Your task to perform on an android device: Open calendar and show me the third week of next month Image 0: 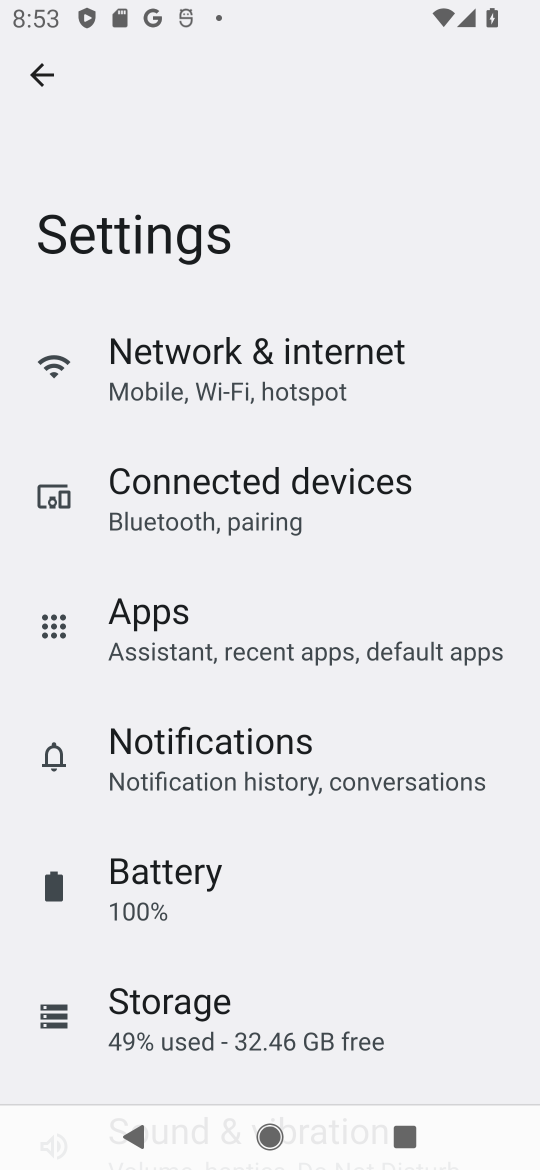
Step 0: press home button
Your task to perform on an android device: Open calendar and show me the third week of next month Image 1: 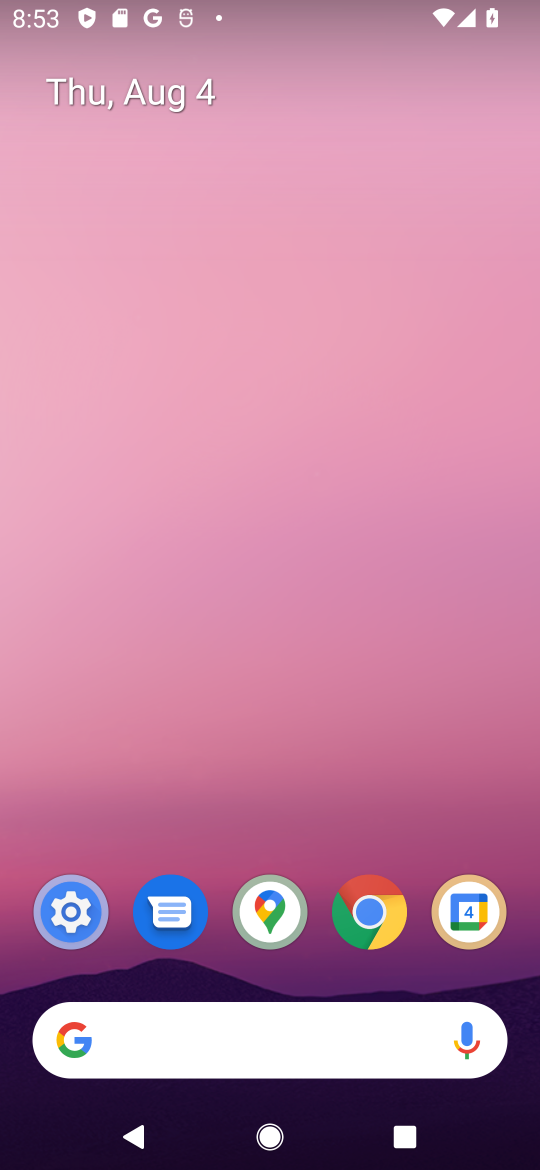
Step 1: drag from (421, 848) to (348, 105)
Your task to perform on an android device: Open calendar and show me the third week of next month Image 2: 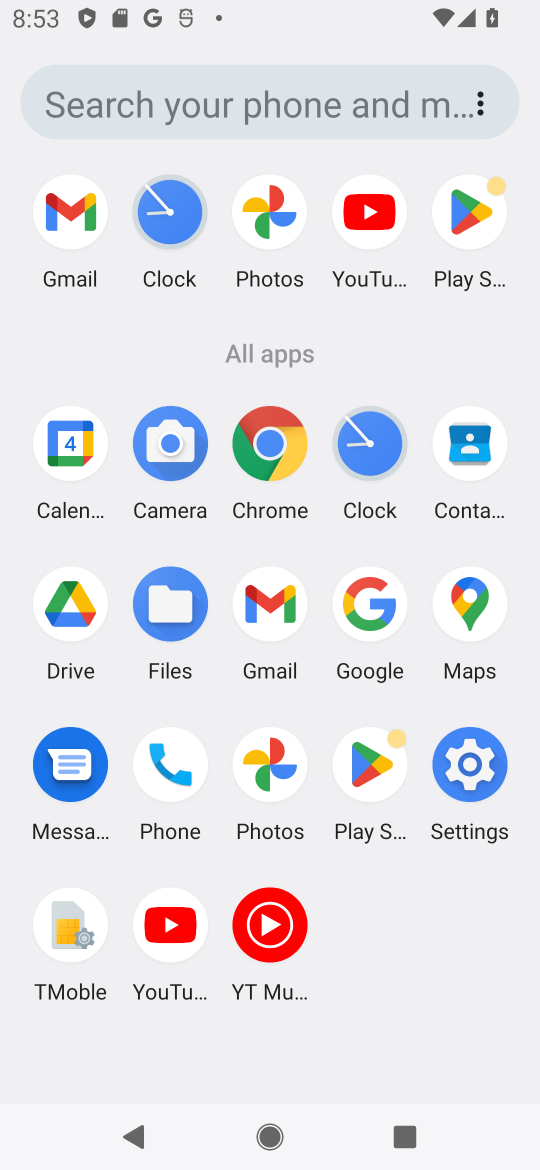
Step 2: click (64, 453)
Your task to perform on an android device: Open calendar and show me the third week of next month Image 3: 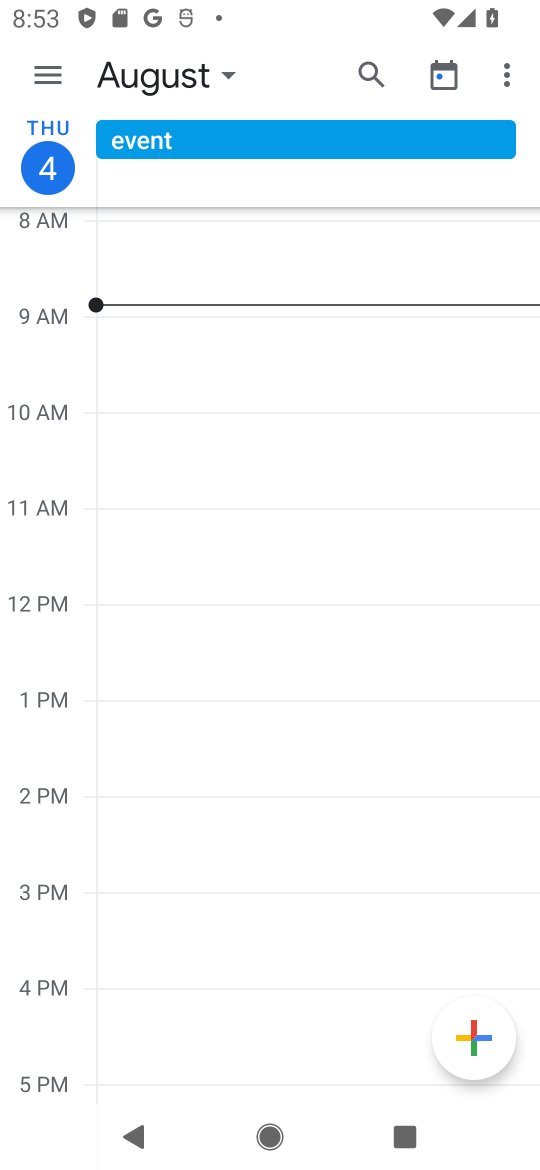
Step 3: click (38, 80)
Your task to perform on an android device: Open calendar and show me the third week of next month Image 4: 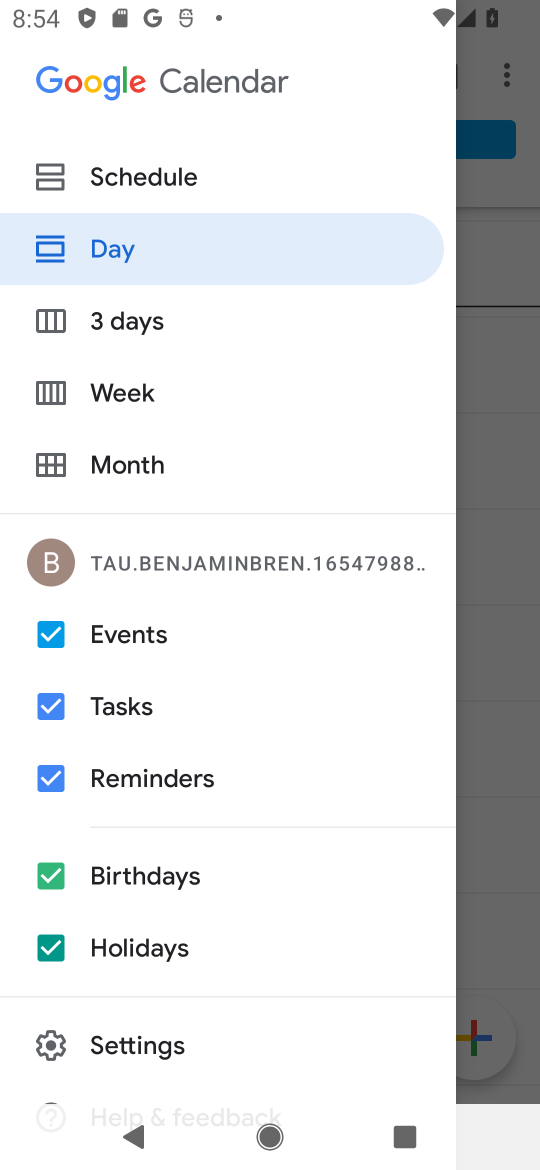
Step 4: click (173, 404)
Your task to perform on an android device: Open calendar and show me the third week of next month Image 5: 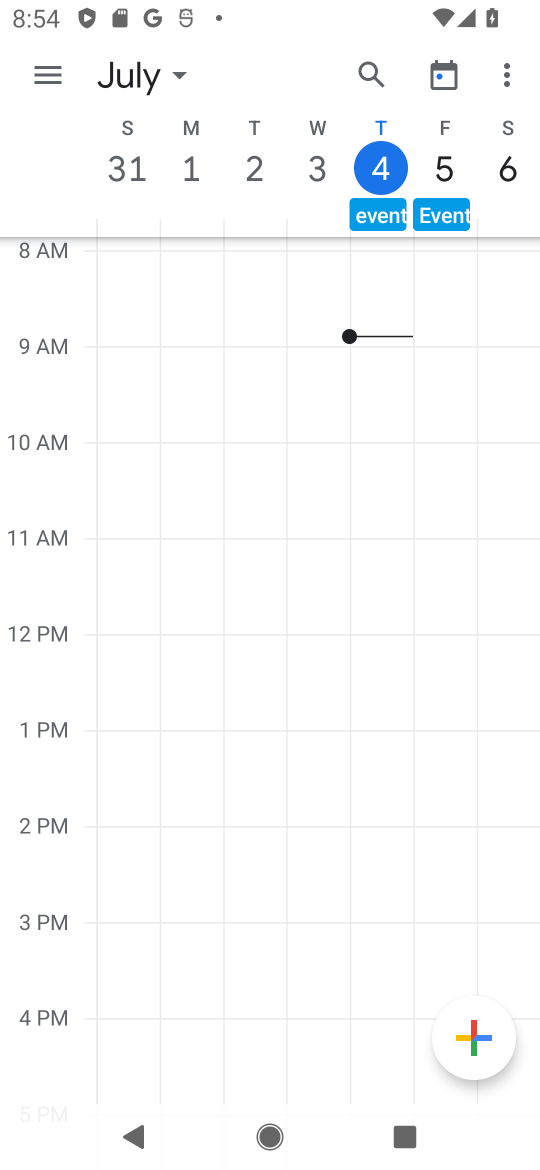
Step 5: click (169, 74)
Your task to perform on an android device: Open calendar and show me the third week of next month Image 6: 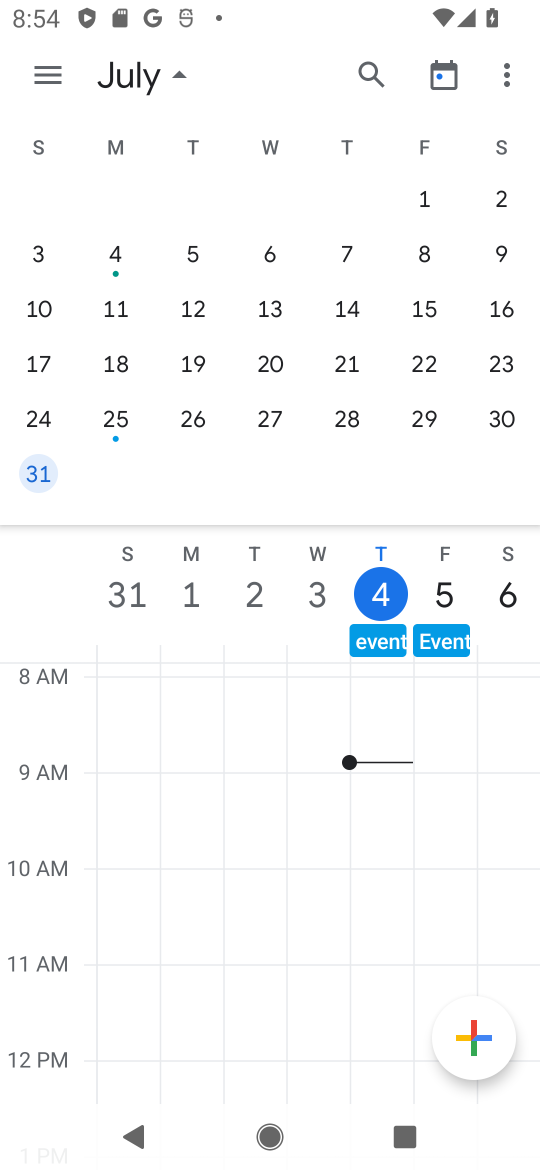
Step 6: drag from (526, 332) to (10, 269)
Your task to perform on an android device: Open calendar and show me the third week of next month Image 7: 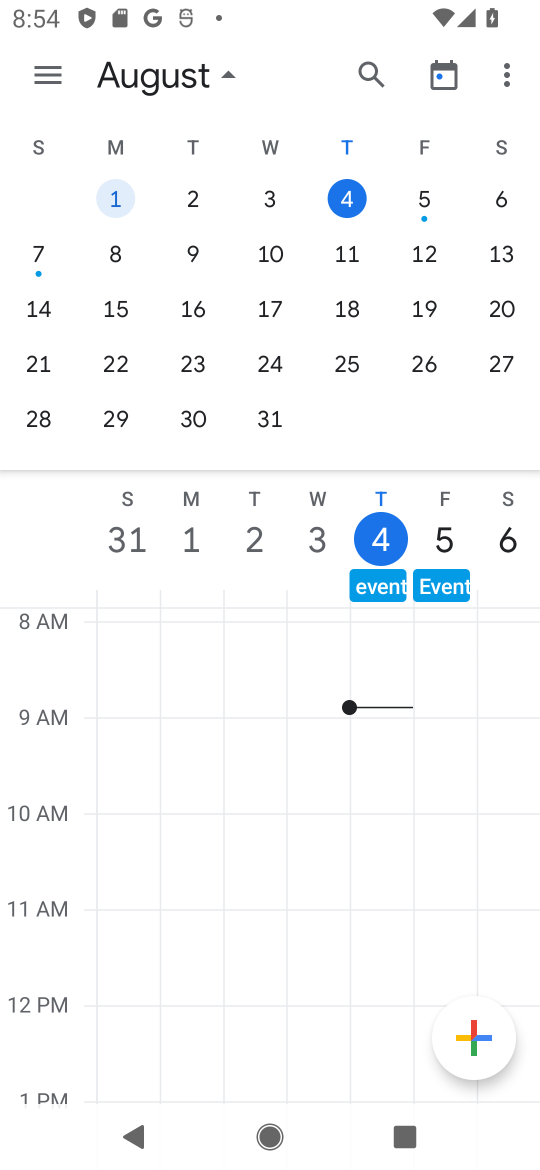
Step 7: drag from (519, 334) to (75, 263)
Your task to perform on an android device: Open calendar and show me the third week of next month Image 8: 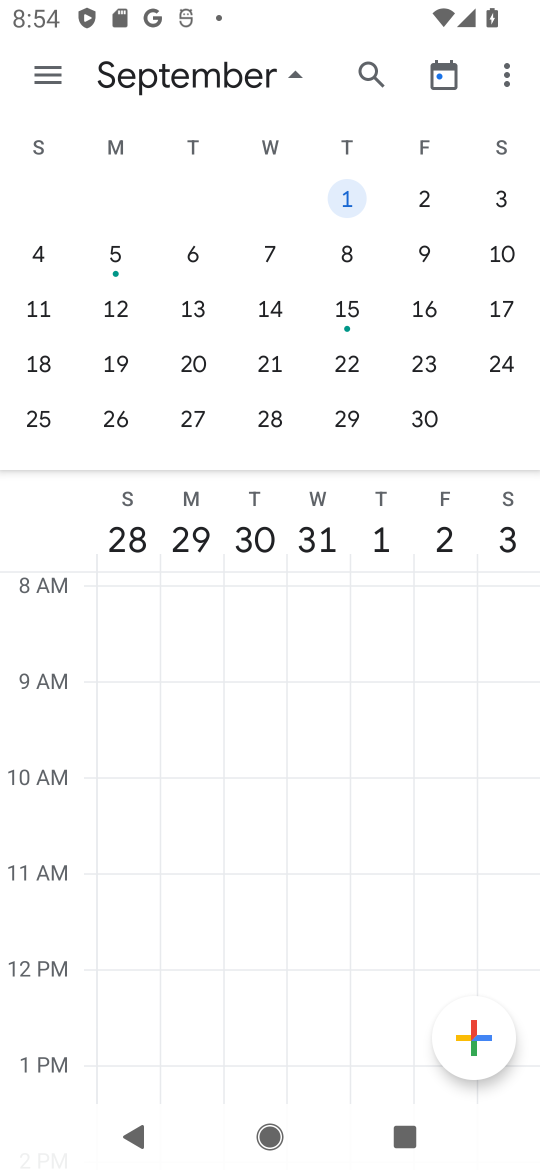
Step 8: click (260, 372)
Your task to perform on an android device: Open calendar and show me the third week of next month Image 9: 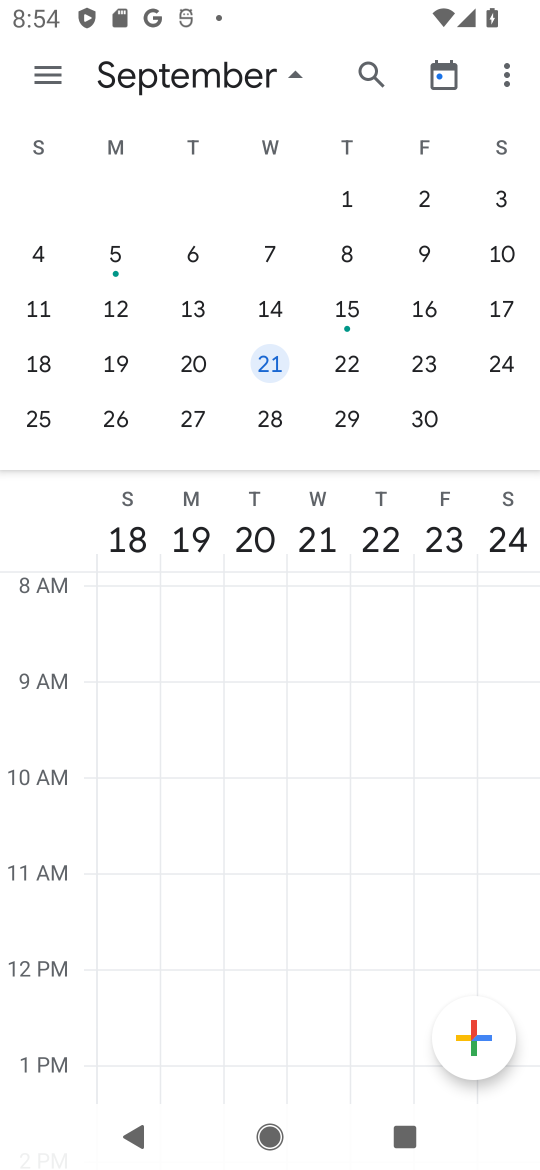
Step 9: task complete